Your task to perform on an android device: Go to ESPN.com Image 0: 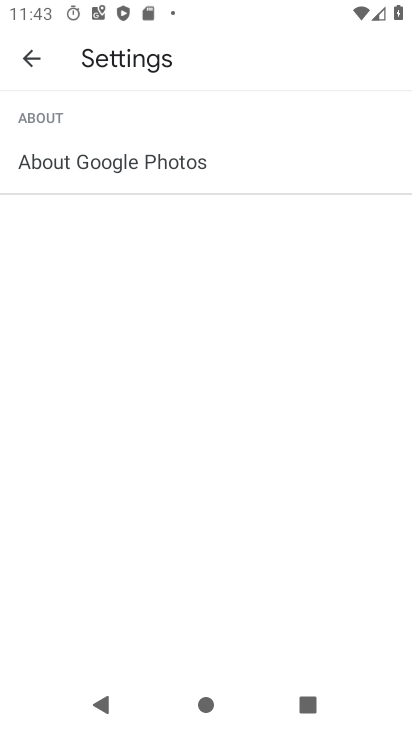
Step 0: press home button
Your task to perform on an android device: Go to ESPN.com Image 1: 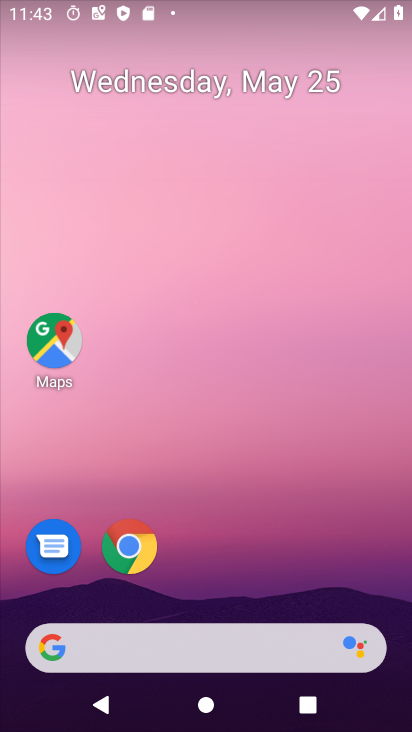
Step 1: click (128, 555)
Your task to perform on an android device: Go to ESPN.com Image 2: 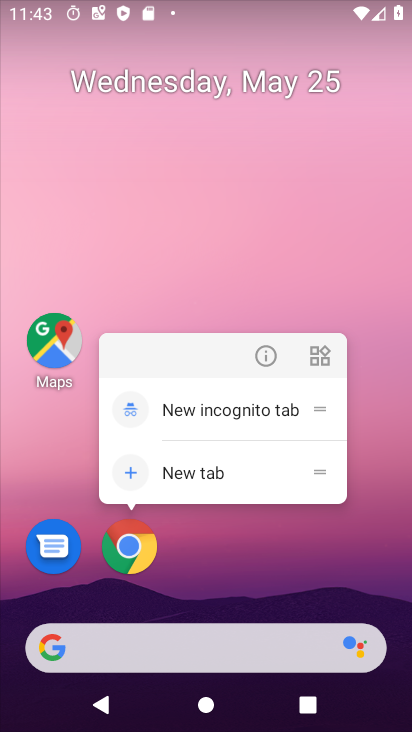
Step 2: click (128, 553)
Your task to perform on an android device: Go to ESPN.com Image 3: 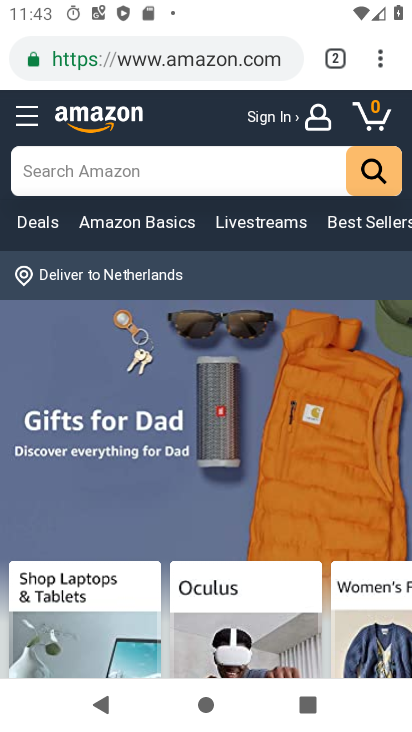
Step 3: click (170, 64)
Your task to perform on an android device: Go to ESPN.com Image 4: 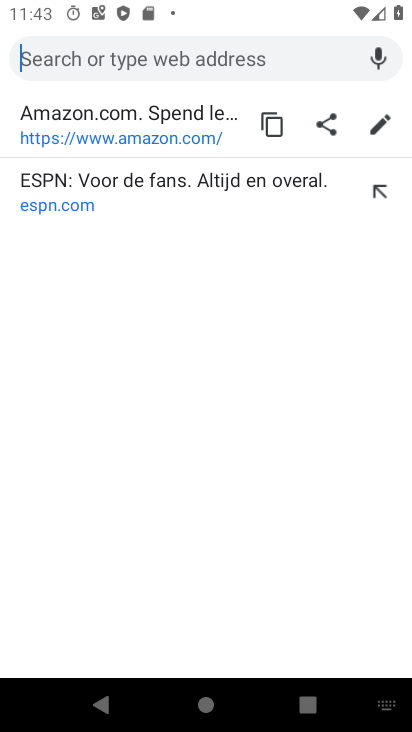
Step 4: type "espn.com"
Your task to perform on an android device: Go to ESPN.com Image 5: 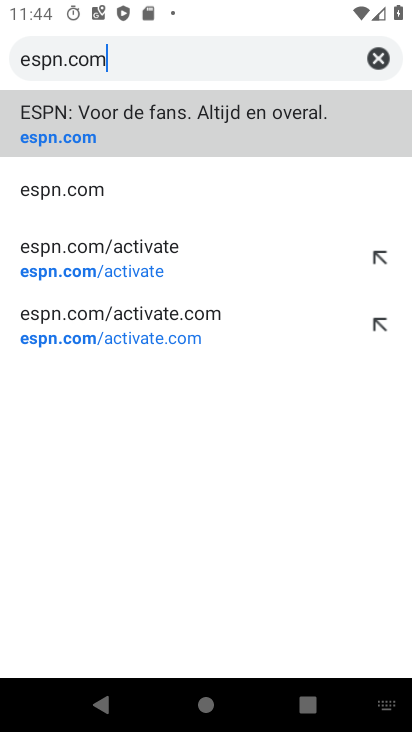
Step 5: click (153, 136)
Your task to perform on an android device: Go to ESPN.com Image 6: 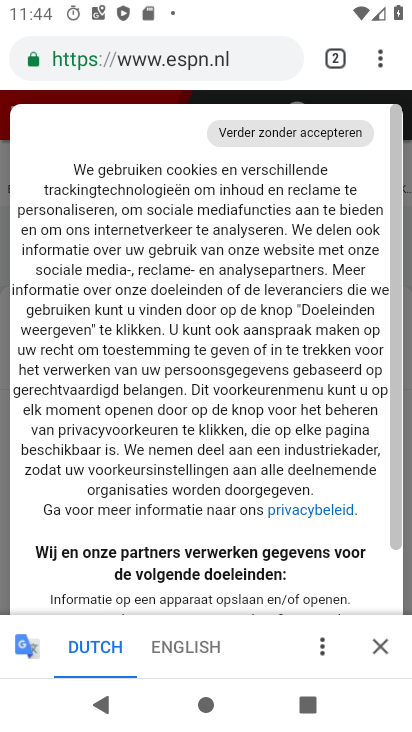
Step 6: task complete